Your task to perform on an android device: change text size in settings app Image 0: 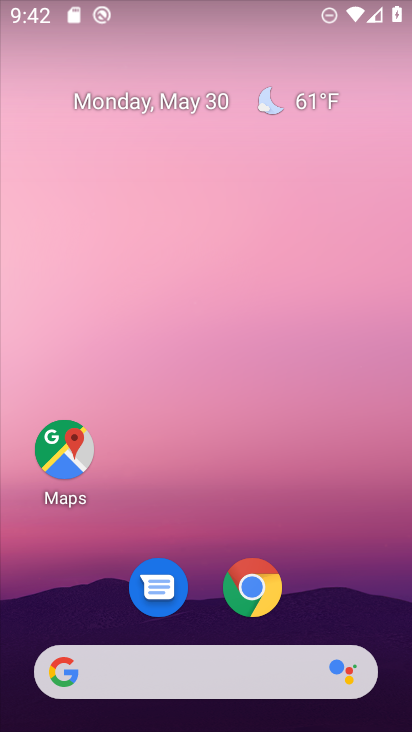
Step 0: drag from (204, 633) to (206, 33)
Your task to perform on an android device: change text size in settings app Image 1: 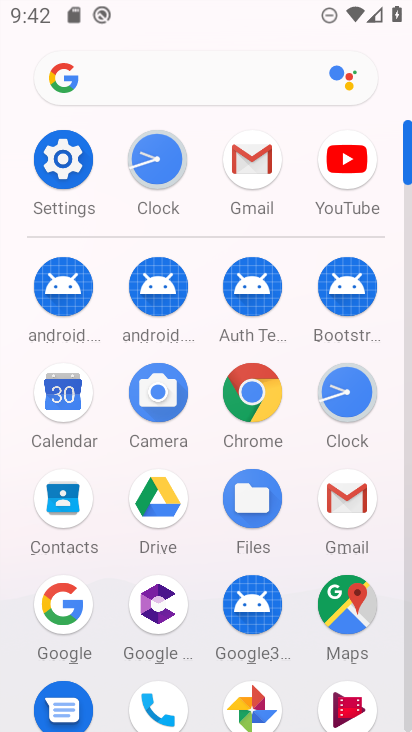
Step 1: click (47, 172)
Your task to perform on an android device: change text size in settings app Image 2: 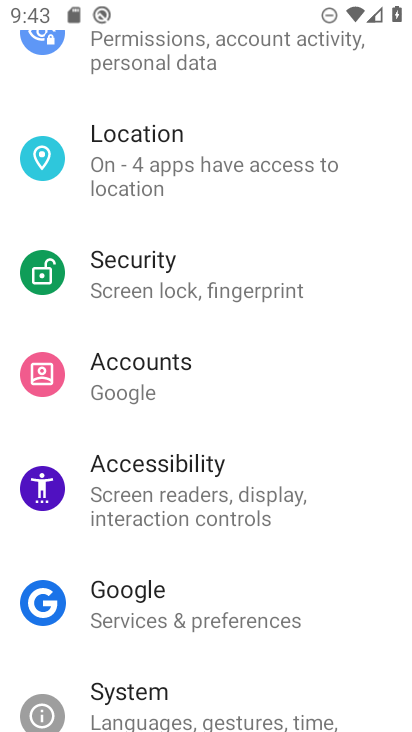
Step 2: drag from (145, 252) to (142, 658)
Your task to perform on an android device: change text size in settings app Image 3: 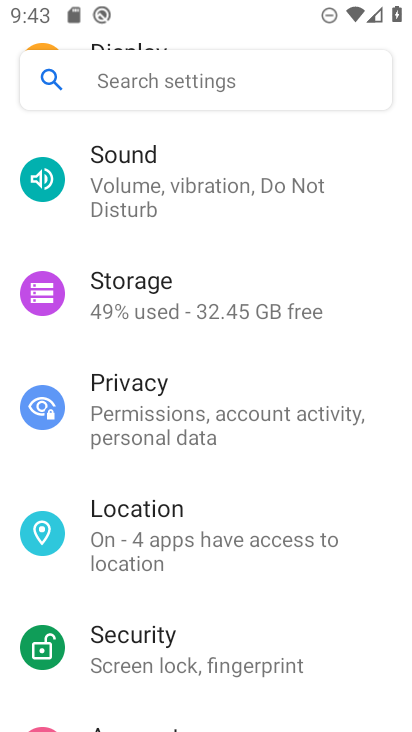
Step 3: drag from (134, 169) to (133, 601)
Your task to perform on an android device: change text size in settings app Image 4: 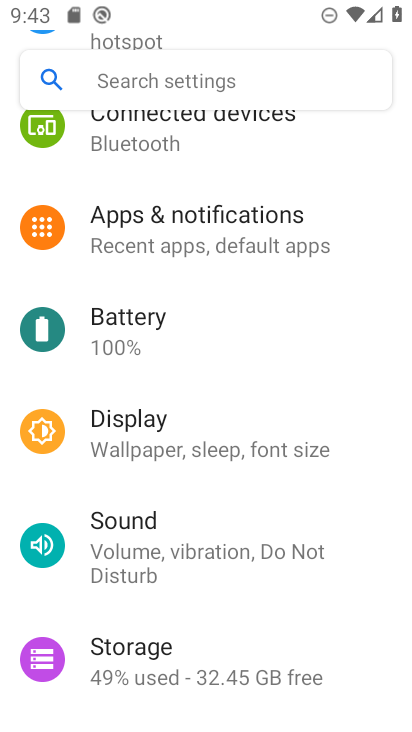
Step 4: click (162, 418)
Your task to perform on an android device: change text size in settings app Image 5: 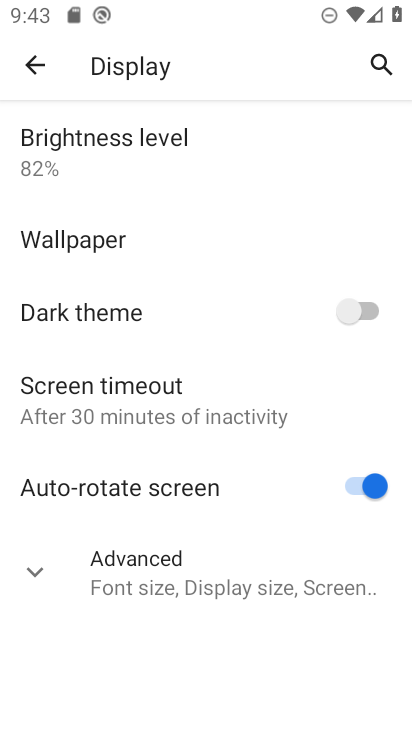
Step 5: click (107, 564)
Your task to perform on an android device: change text size in settings app Image 6: 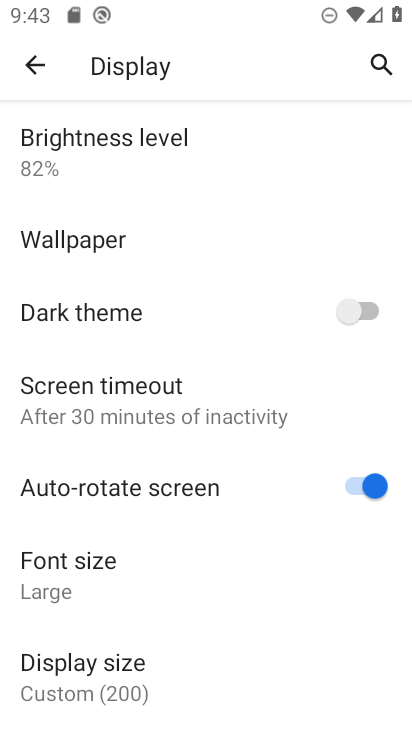
Step 6: click (88, 568)
Your task to perform on an android device: change text size in settings app Image 7: 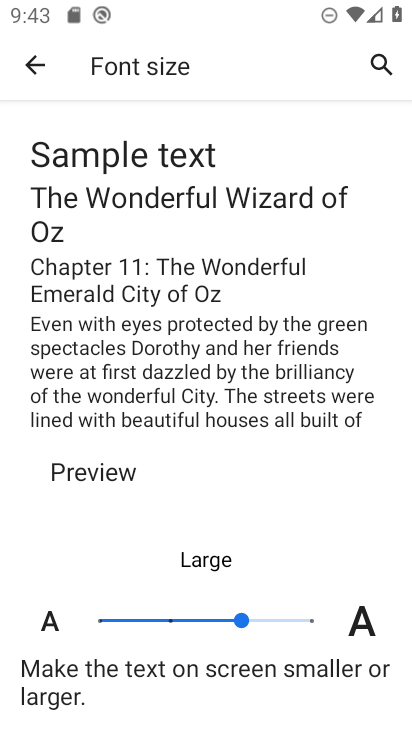
Step 7: click (178, 616)
Your task to perform on an android device: change text size in settings app Image 8: 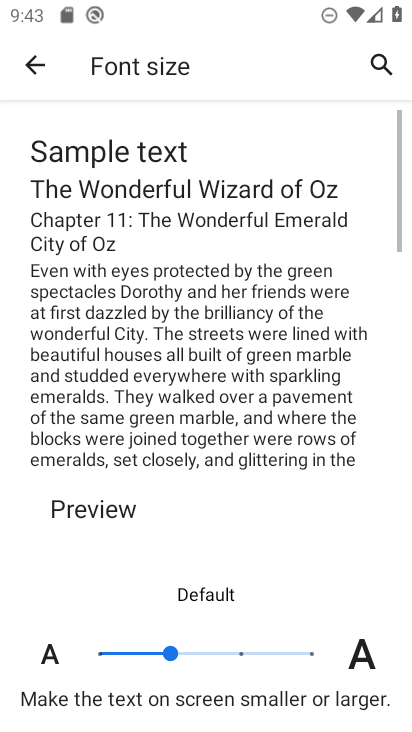
Step 8: task complete